Your task to perform on an android device: Open the web browser Image 0: 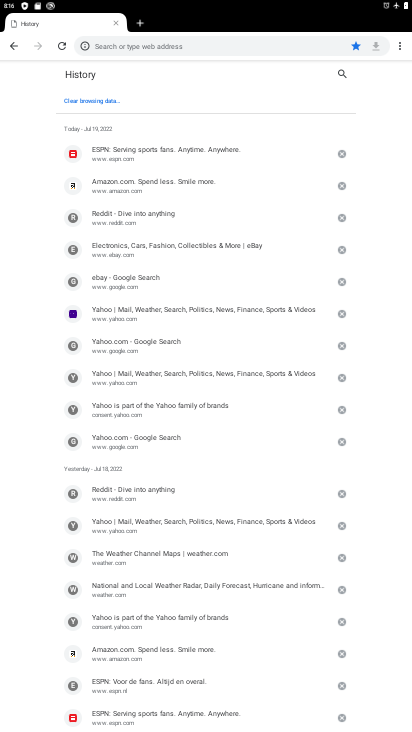
Step 0: click (396, 49)
Your task to perform on an android device: Open the web browser Image 1: 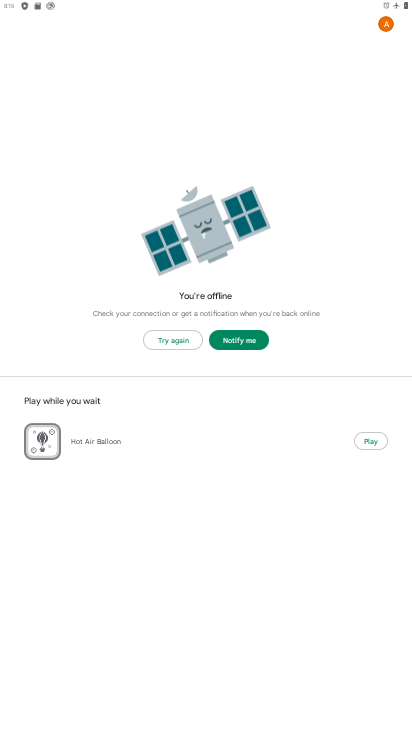
Step 1: press back button
Your task to perform on an android device: Open the web browser Image 2: 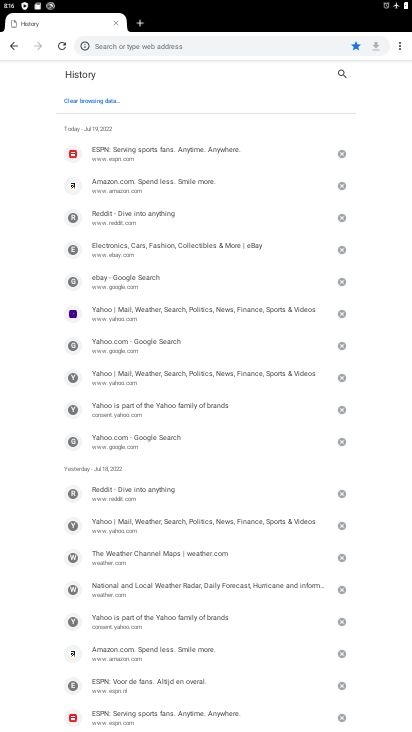
Step 2: click (405, 50)
Your task to perform on an android device: Open the web browser Image 3: 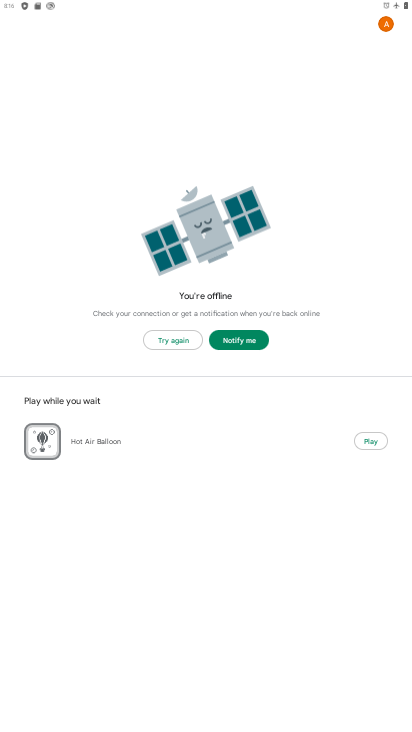
Step 3: press back button
Your task to perform on an android device: Open the web browser Image 4: 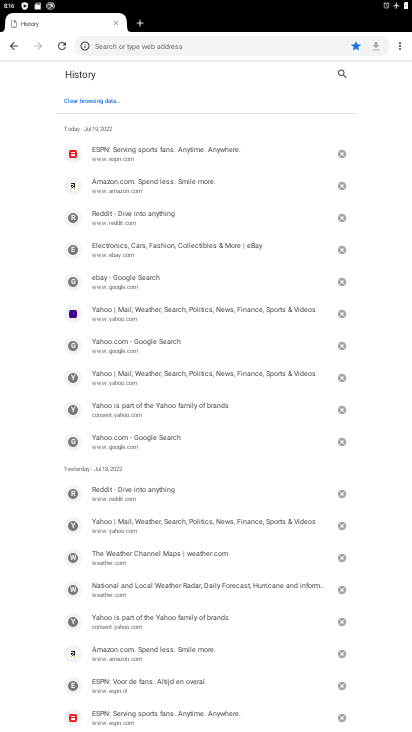
Step 4: click (400, 49)
Your task to perform on an android device: Open the web browser Image 5: 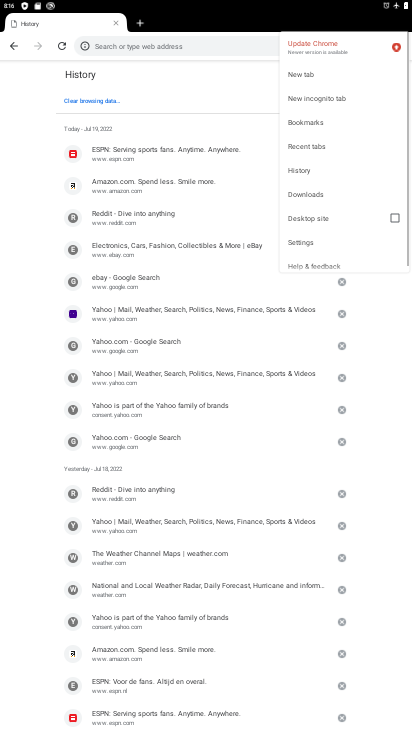
Step 5: click (314, 78)
Your task to perform on an android device: Open the web browser Image 6: 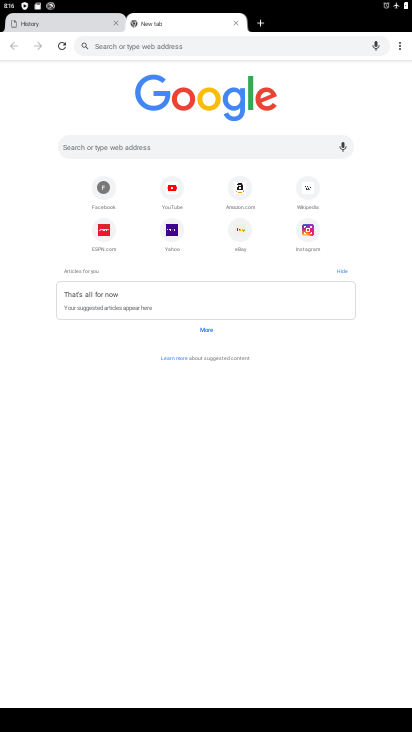
Step 6: task complete